Your task to perform on an android device: turn on sleep mode Image 0: 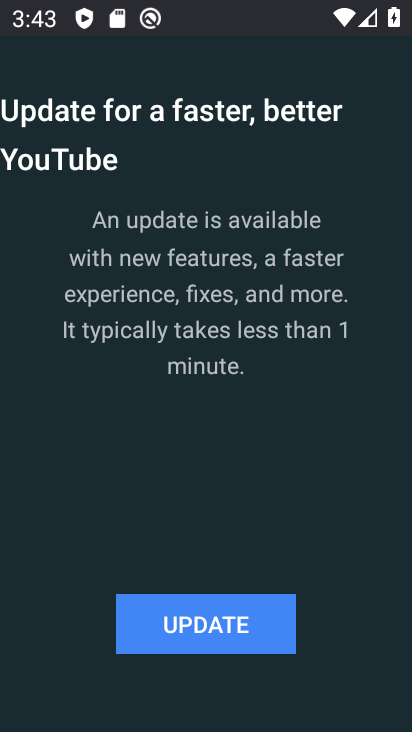
Step 0: press back button
Your task to perform on an android device: turn on sleep mode Image 1: 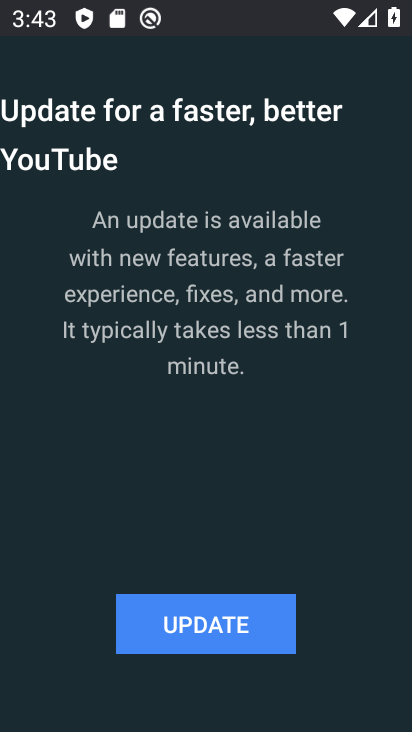
Step 1: press back button
Your task to perform on an android device: turn on sleep mode Image 2: 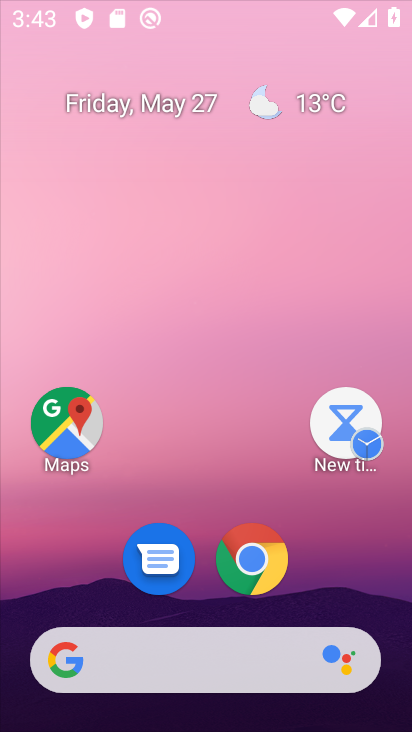
Step 2: press back button
Your task to perform on an android device: turn on sleep mode Image 3: 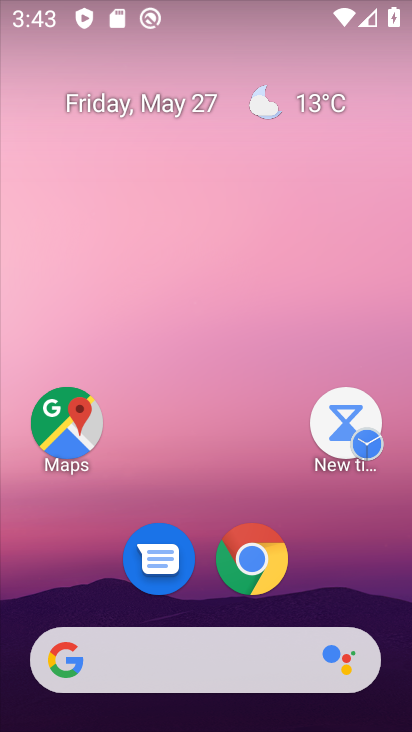
Step 3: press home button
Your task to perform on an android device: turn on sleep mode Image 4: 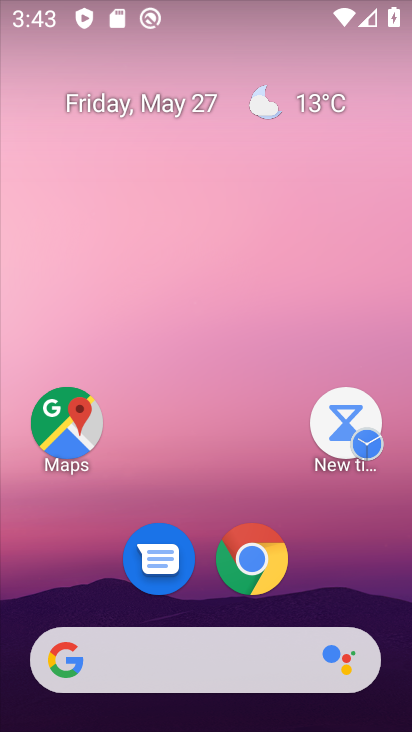
Step 4: drag from (257, 704) to (169, 131)
Your task to perform on an android device: turn on sleep mode Image 5: 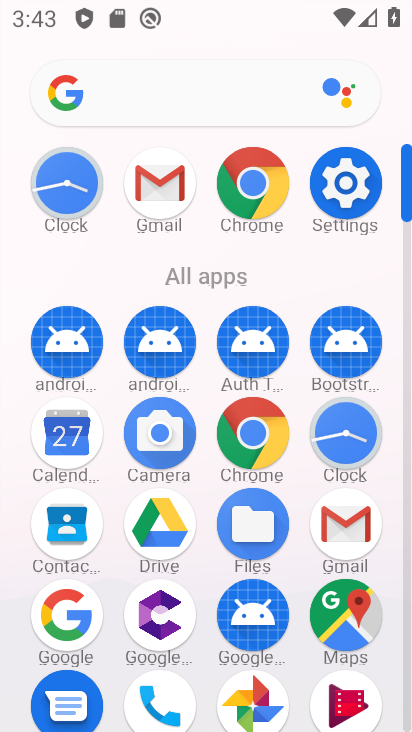
Step 5: drag from (294, 412) to (296, 126)
Your task to perform on an android device: turn on sleep mode Image 6: 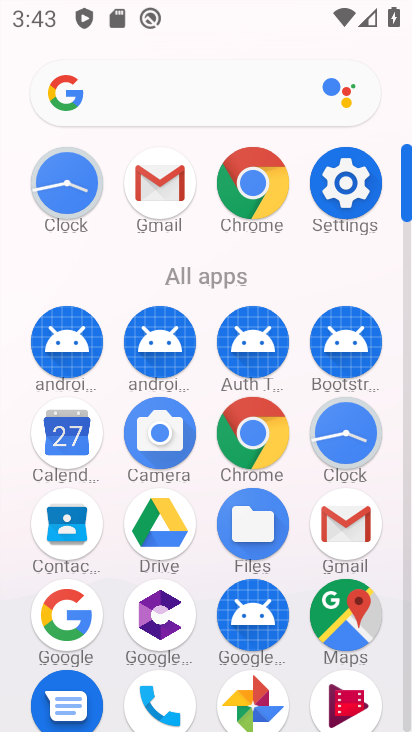
Step 6: drag from (286, 333) to (274, 84)
Your task to perform on an android device: turn on sleep mode Image 7: 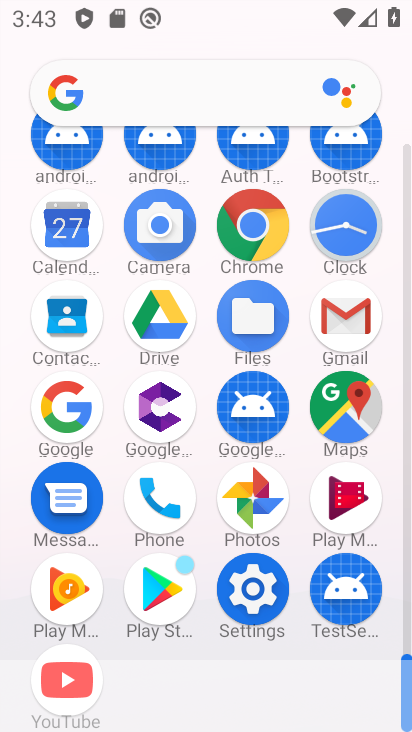
Step 7: click (250, 603)
Your task to perform on an android device: turn on sleep mode Image 8: 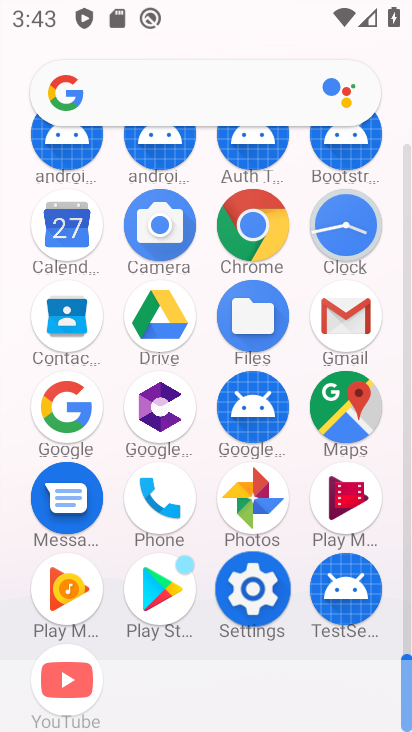
Step 8: click (251, 602)
Your task to perform on an android device: turn on sleep mode Image 9: 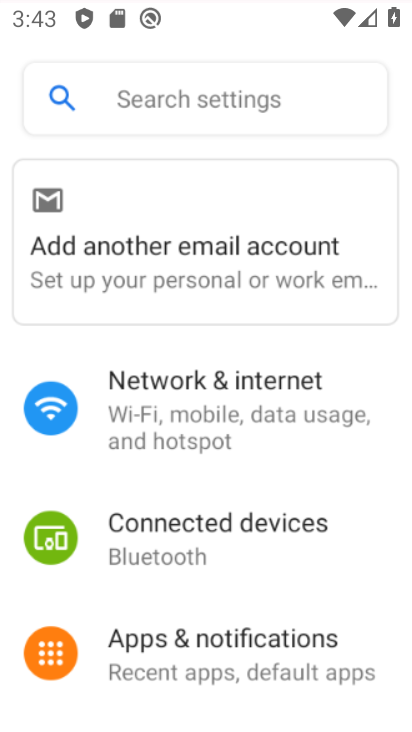
Step 9: click (250, 601)
Your task to perform on an android device: turn on sleep mode Image 10: 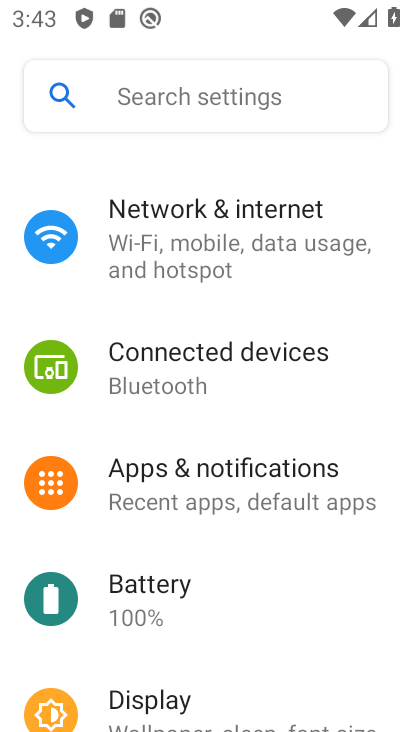
Step 10: click (250, 601)
Your task to perform on an android device: turn on sleep mode Image 11: 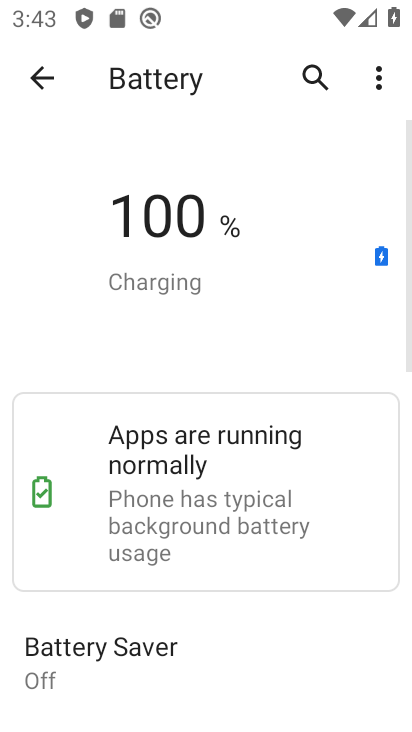
Step 11: click (42, 80)
Your task to perform on an android device: turn on sleep mode Image 12: 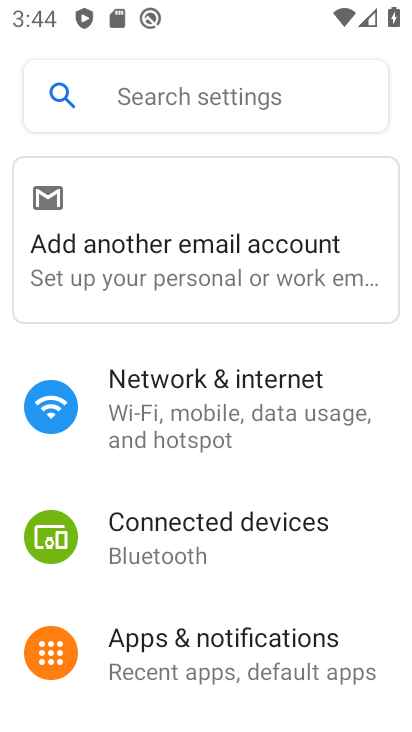
Step 12: drag from (238, 584) to (231, 254)
Your task to perform on an android device: turn on sleep mode Image 13: 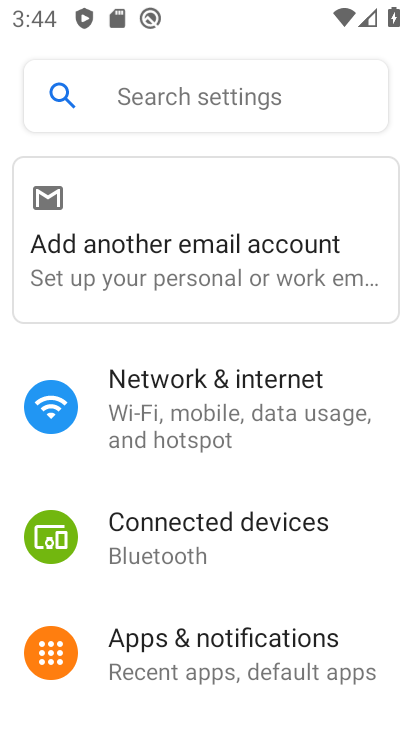
Step 13: drag from (261, 459) to (209, 169)
Your task to perform on an android device: turn on sleep mode Image 14: 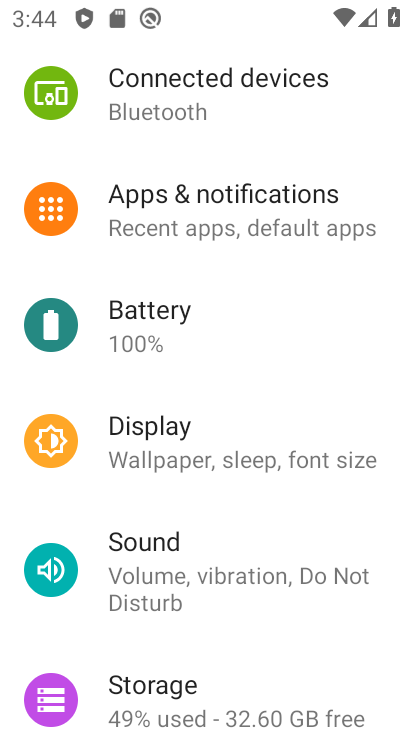
Step 14: click (134, 451)
Your task to perform on an android device: turn on sleep mode Image 15: 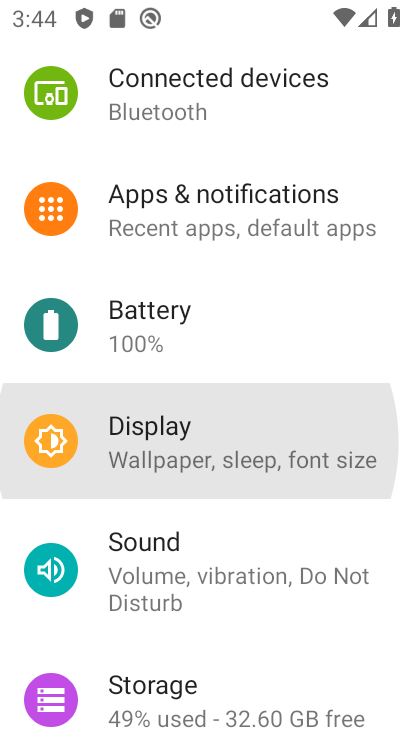
Step 15: click (142, 441)
Your task to perform on an android device: turn on sleep mode Image 16: 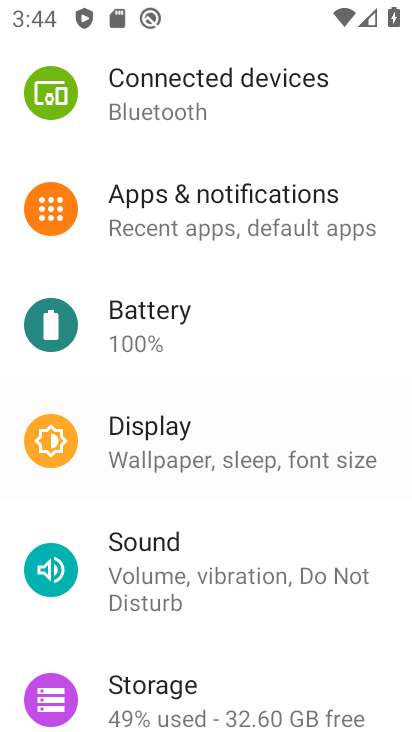
Step 16: click (142, 441)
Your task to perform on an android device: turn on sleep mode Image 17: 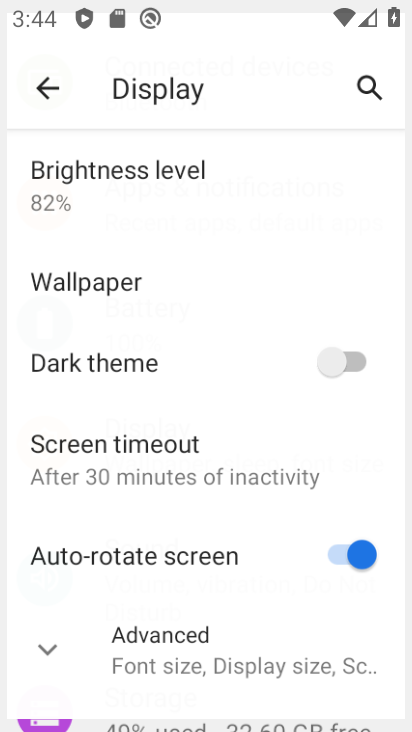
Step 17: click (143, 441)
Your task to perform on an android device: turn on sleep mode Image 18: 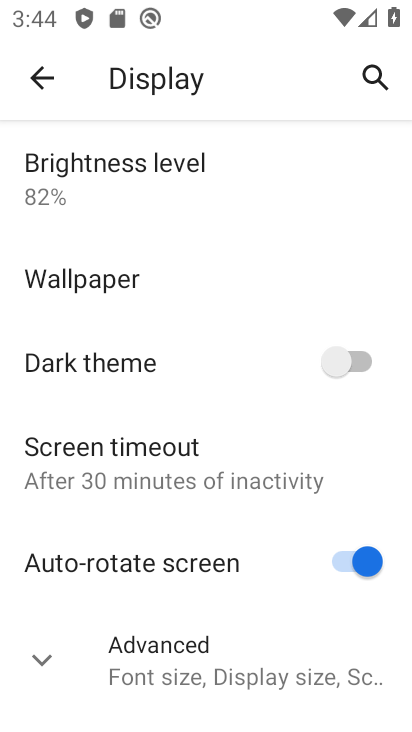
Step 18: click (143, 441)
Your task to perform on an android device: turn on sleep mode Image 19: 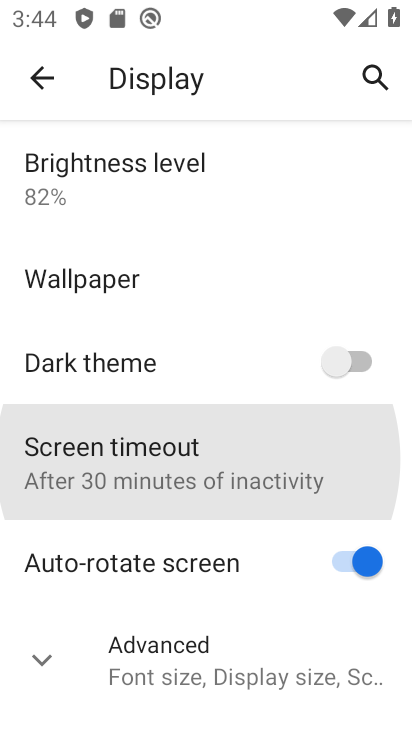
Step 19: click (144, 442)
Your task to perform on an android device: turn on sleep mode Image 20: 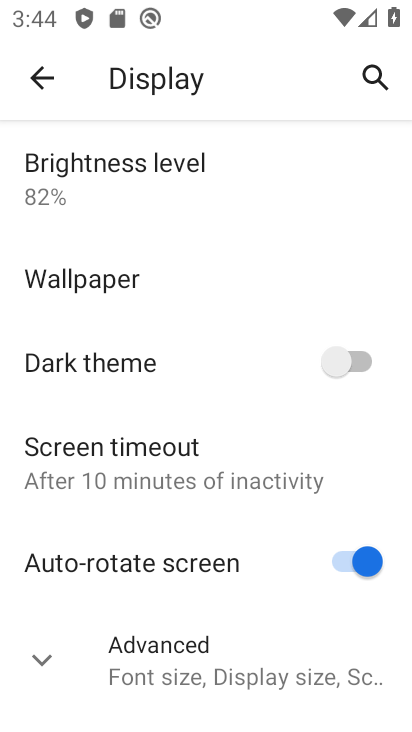
Step 20: click (37, 74)
Your task to perform on an android device: turn on sleep mode Image 21: 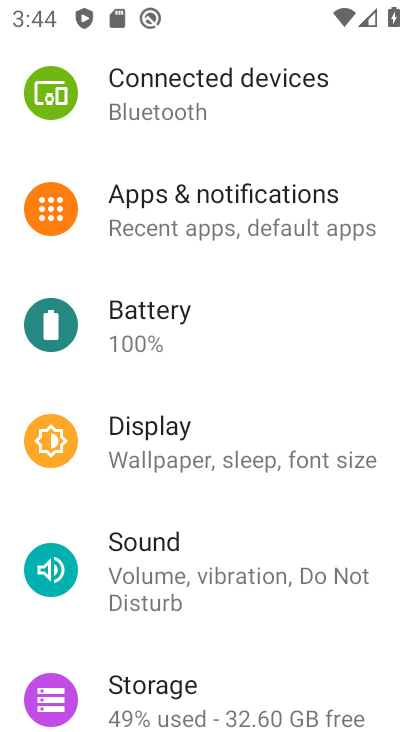
Step 21: click (184, 451)
Your task to perform on an android device: turn on sleep mode Image 22: 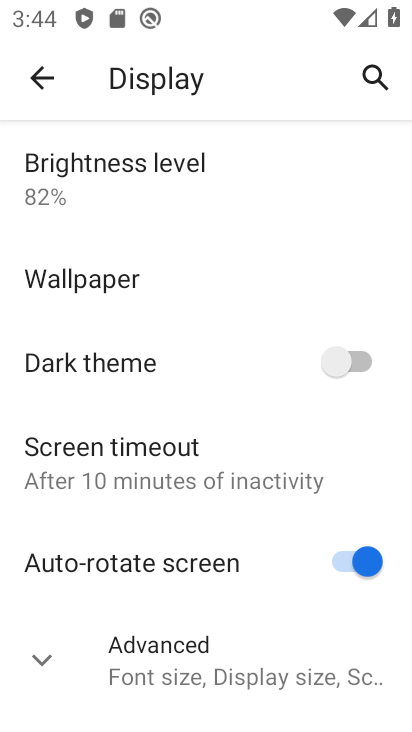
Step 22: click (133, 461)
Your task to perform on an android device: turn on sleep mode Image 23: 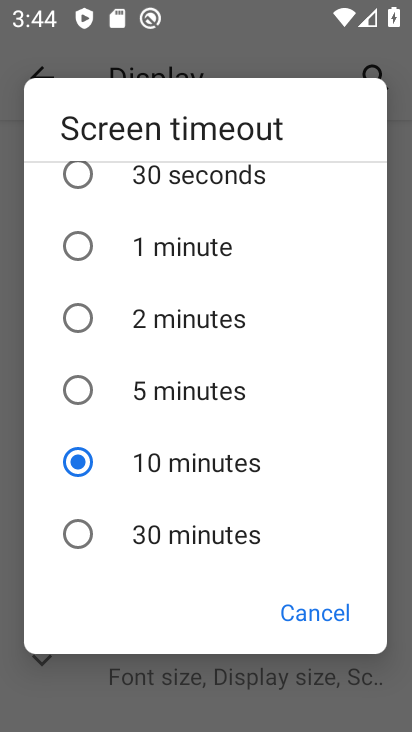
Step 23: task complete